Your task to perform on an android device: turn pop-ups off in chrome Image 0: 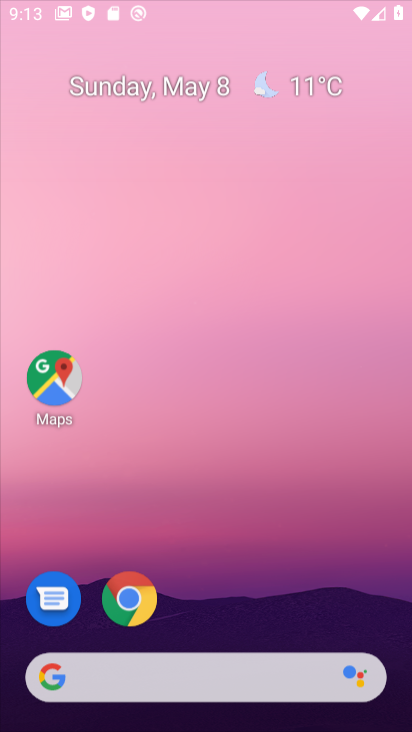
Step 0: click (137, 609)
Your task to perform on an android device: turn pop-ups off in chrome Image 1: 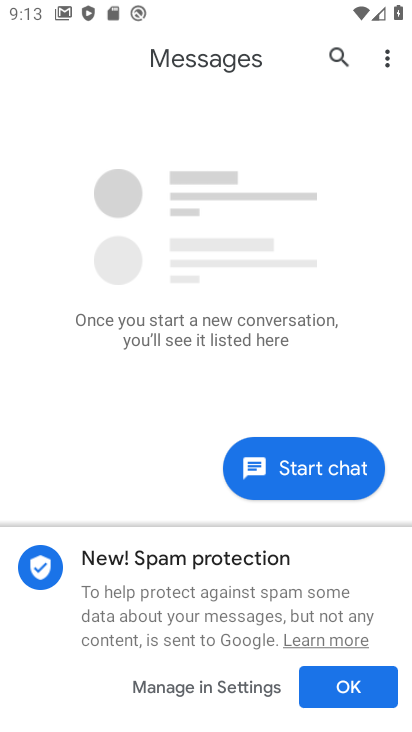
Step 1: press home button
Your task to perform on an android device: turn pop-ups off in chrome Image 2: 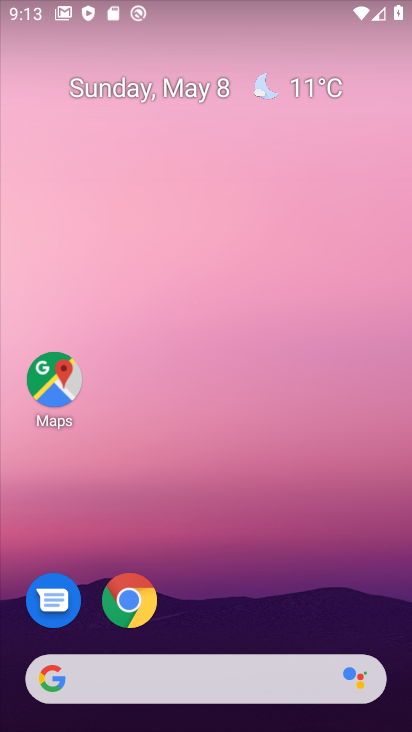
Step 2: click (124, 603)
Your task to perform on an android device: turn pop-ups off in chrome Image 3: 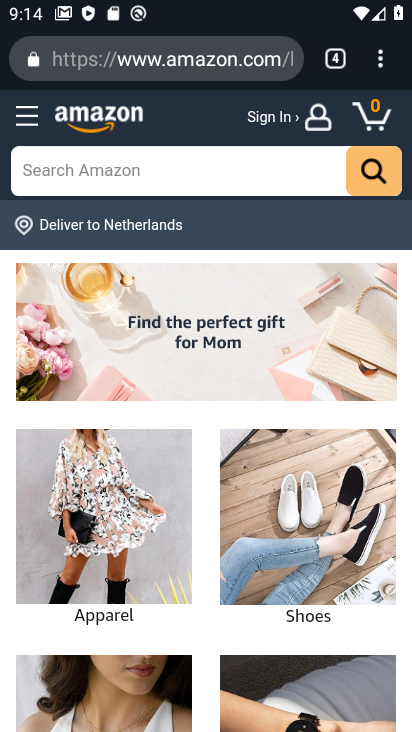
Step 3: click (373, 64)
Your task to perform on an android device: turn pop-ups off in chrome Image 4: 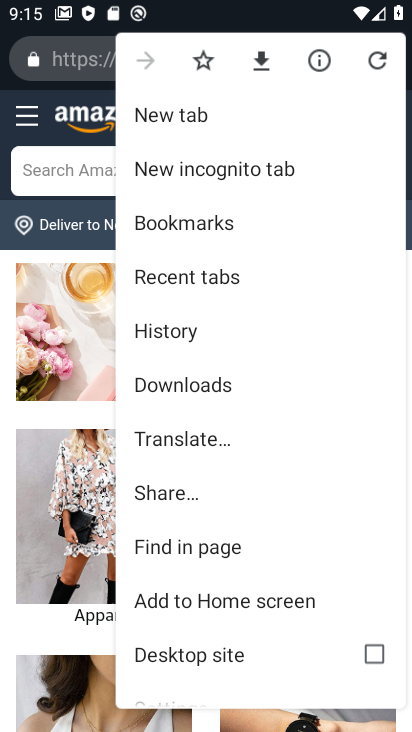
Step 4: drag from (171, 660) to (262, 317)
Your task to perform on an android device: turn pop-ups off in chrome Image 5: 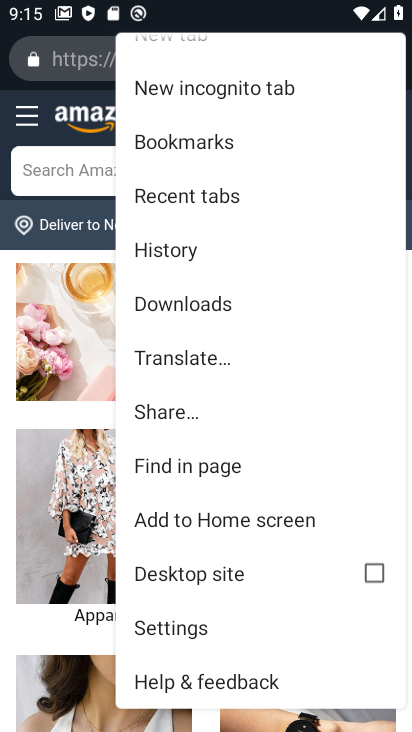
Step 5: click (216, 629)
Your task to perform on an android device: turn pop-ups off in chrome Image 6: 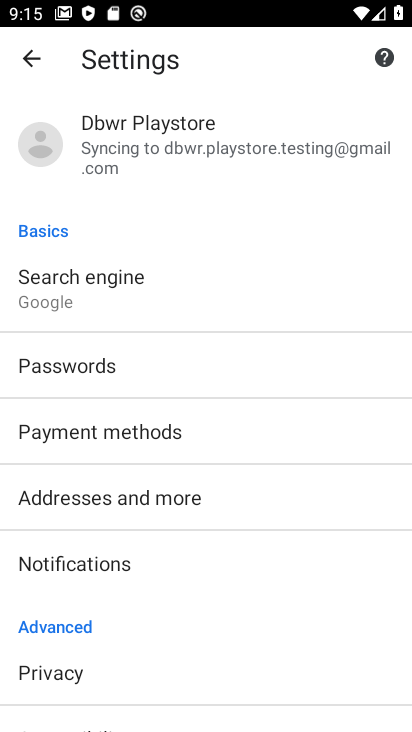
Step 6: drag from (216, 629) to (238, 324)
Your task to perform on an android device: turn pop-ups off in chrome Image 7: 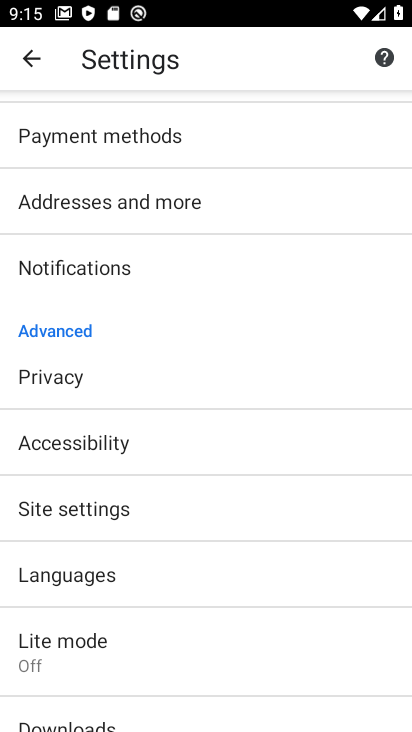
Step 7: click (150, 528)
Your task to perform on an android device: turn pop-ups off in chrome Image 8: 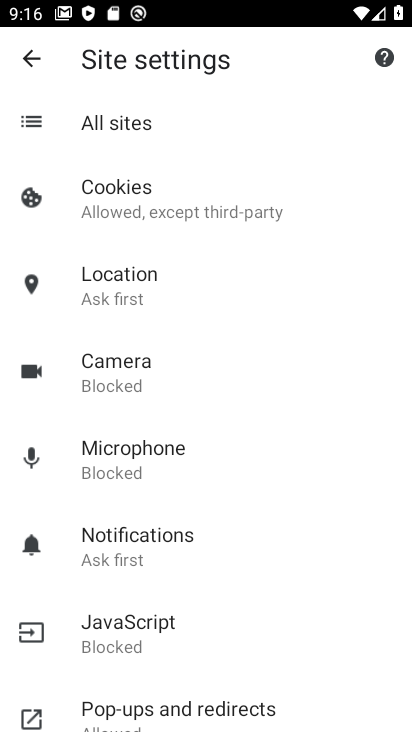
Step 8: task complete